Your task to perform on an android device: Search for vegetarian restaurants on Maps Image 0: 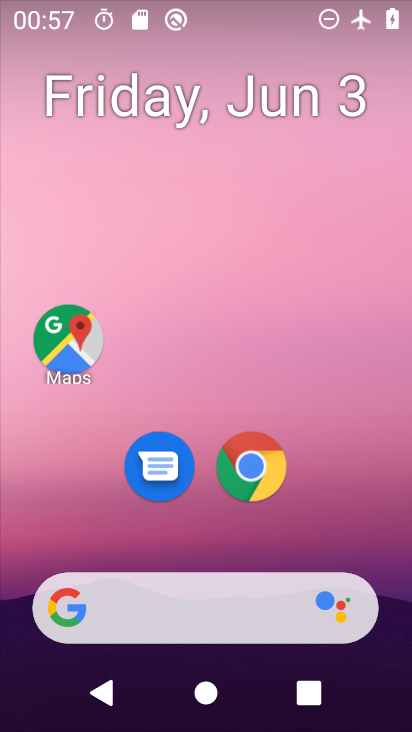
Step 0: click (77, 365)
Your task to perform on an android device: Search for vegetarian restaurants on Maps Image 1: 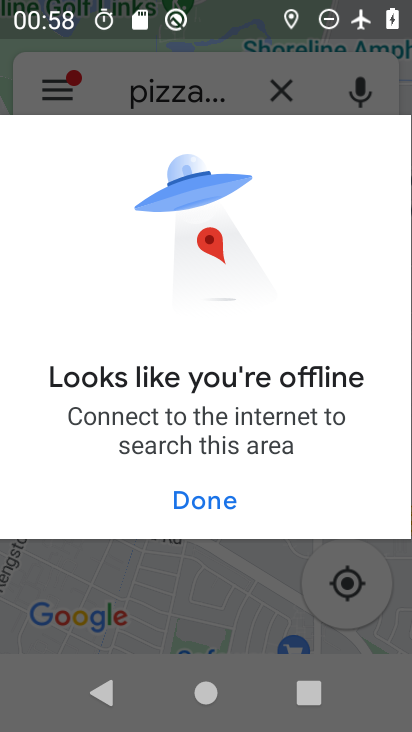
Step 1: task complete